Your task to perform on an android device: turn notification dots on Image 0: 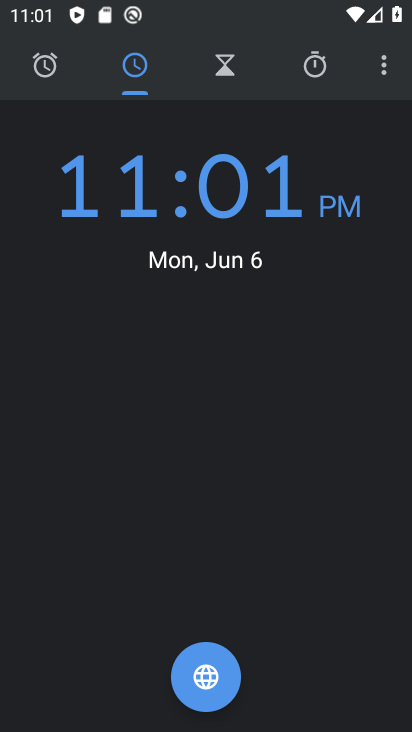
Step 0: press back button
Your task to perform on an android device: turn notification dots on Image 1: 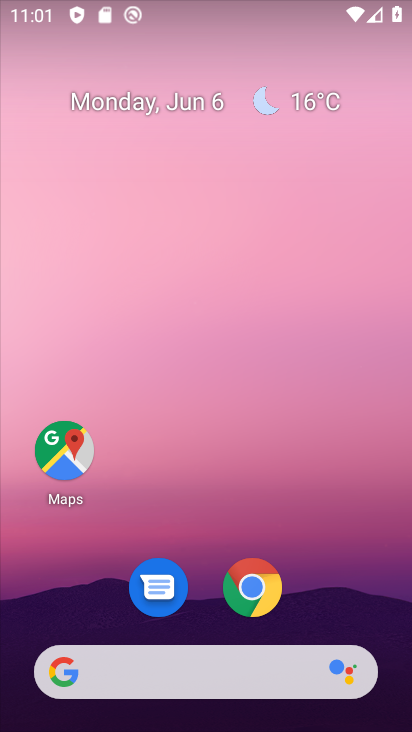
Step 1: drag from (325, 575) to (253, 4)
Your task to perform on an android device: turn notification dots on Image 2: 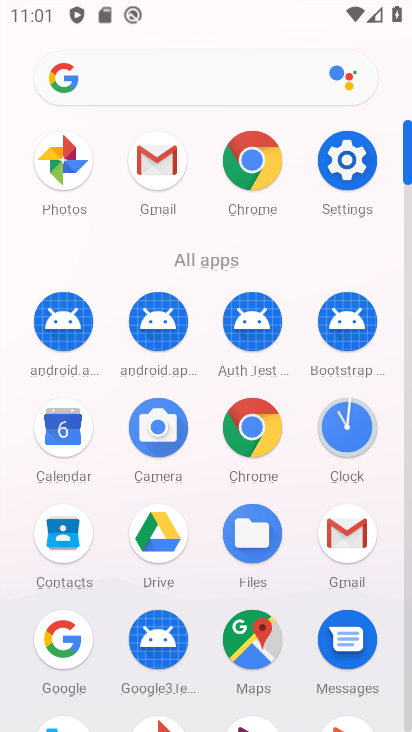
Step 2: click (344, 156)
Your task to perform on an android device: turn notification dots on Image 3: 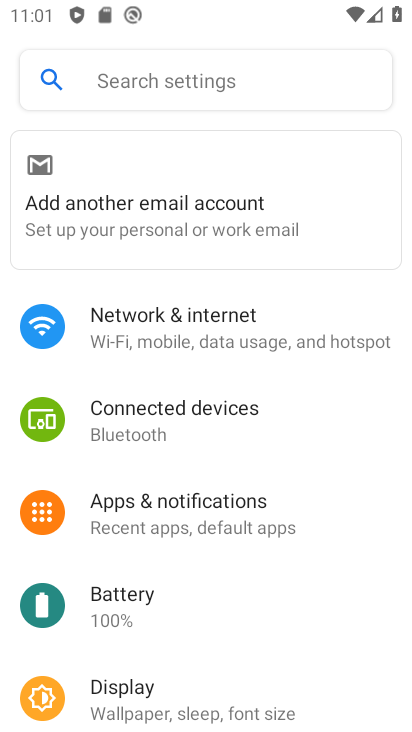
Step 3: click (233, 520)
Your task to perform on an android device: turn notification dots on Image 4: 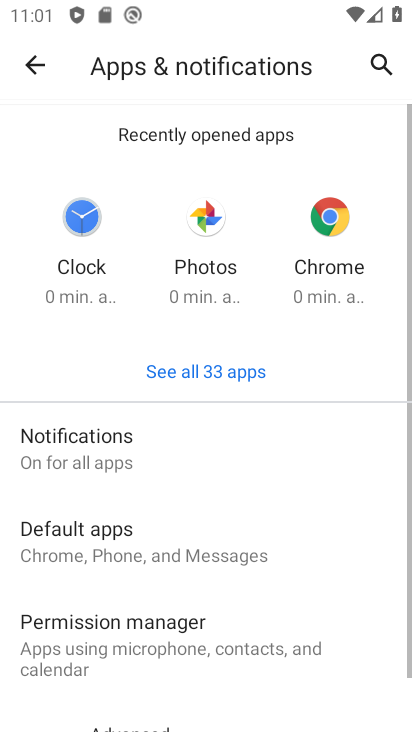
Step 4: click (187, 459)
Your task to perform on an android device: turn notification dots on Image 5: 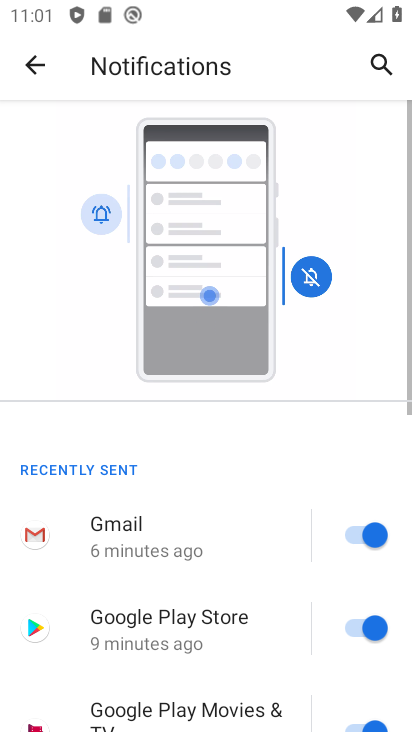
Step 5: drag from (244, 572) to (235, 60)
Your task to perform on an android device: turn notification dots on Image 6: 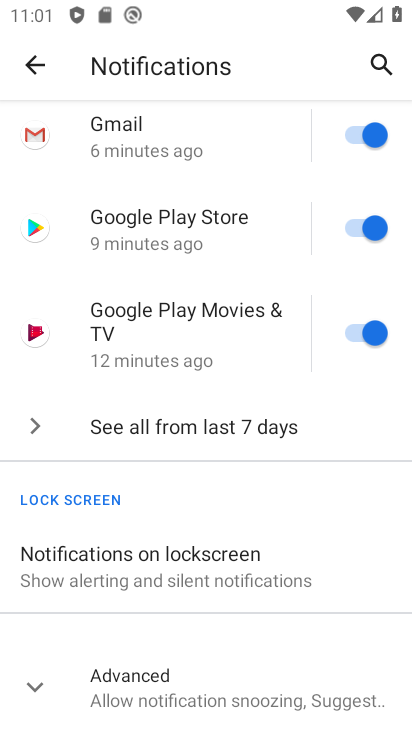
Step 6: click (101, 667)
Your task to perform on an android device: turn notification dots on Image 7: 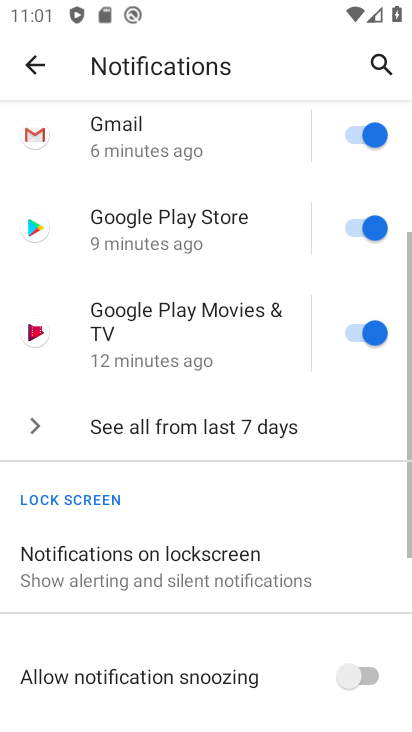
Step 7: task complete